Your task to perform on an android device: Show me popular videos on Youtube Image 0: 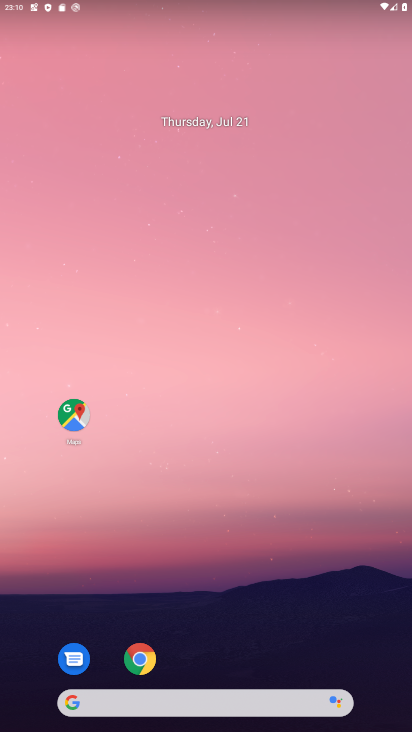
Step 0: drag from (299, 620) to (216, 109)
Your task to perform on an android device: Show me popular videos on Youtube Image 1: 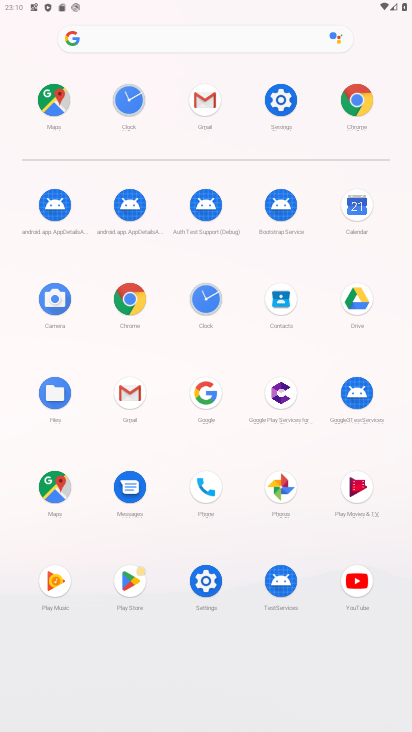
Step 1: click (367, 577)
Your task to perform on an android device: Show me popular videos on Youtube Image 2: 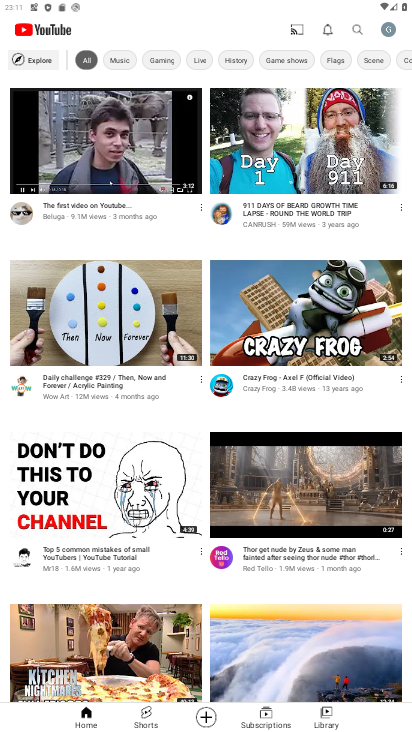
Step 2: click (30, 62)
Your task to perform on an android device: Show me popular videos on Youtube Image 3: 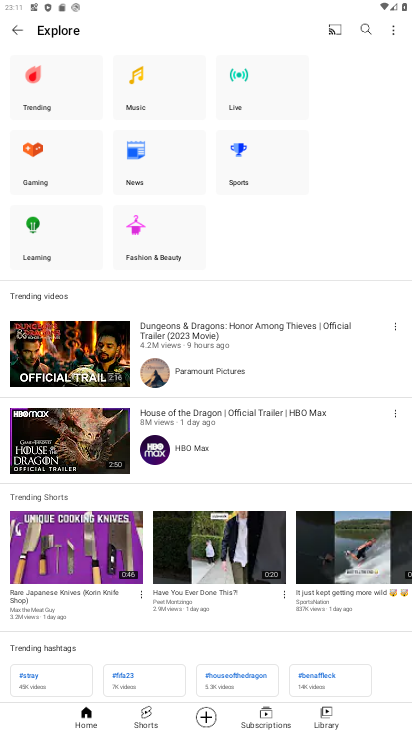
Step 3: task complete